Your task to perform on an android device: turn vacation reply on in the gmail app Image 0: 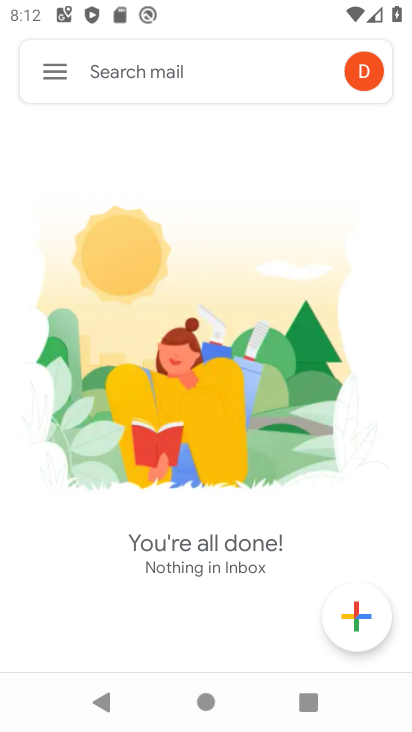
Step 0: click (48, 55)
Your task to perform on an android device: turn vacation reply on in the gmail app Image 1: 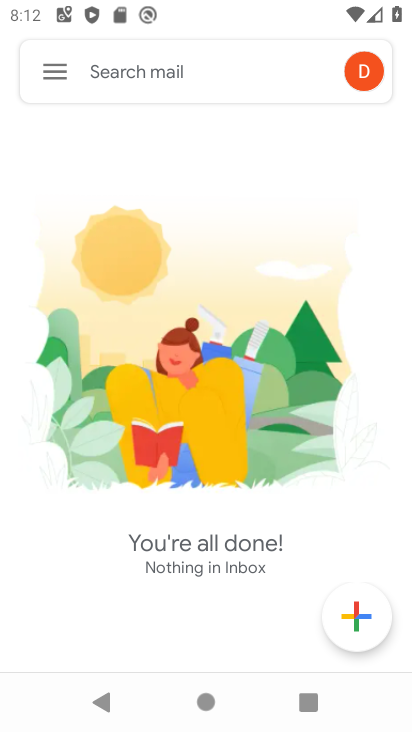
Step 1: click (49, 68)
Your task to perform on an android device: turn vacation reply on in the gmail app Image 2: 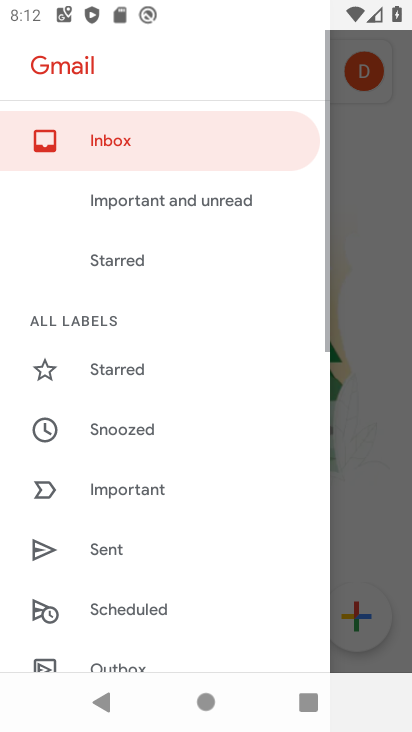
Step 2: click (50, 72)
Your task to perform on an android device: turn vacation reply on in the gmail app Image 3: 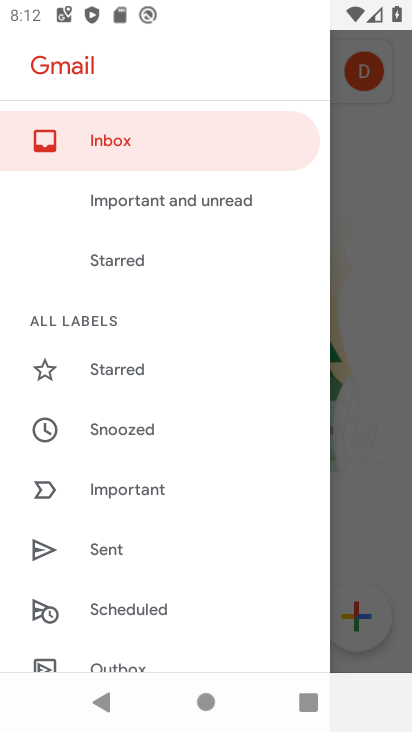
Step 3: click (57, 56)
Your task to perform on an android device: turn vacation reply on in the gmail app Image 4: 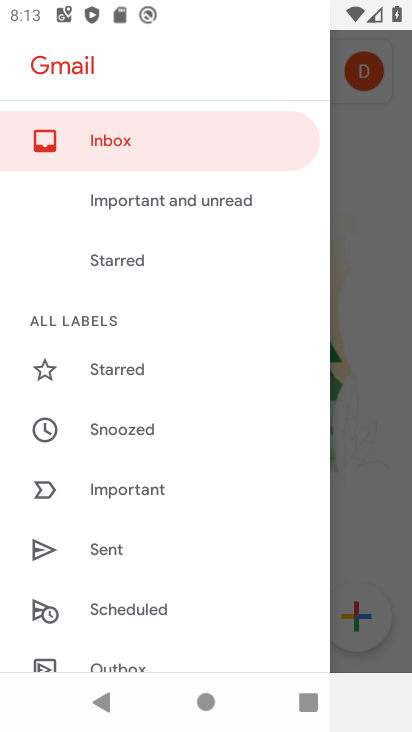
Step 4: drag from (143, 591) to (129, 130)
Your task to perform on an android device: turn vacation reply on in the gmail app Image 5: 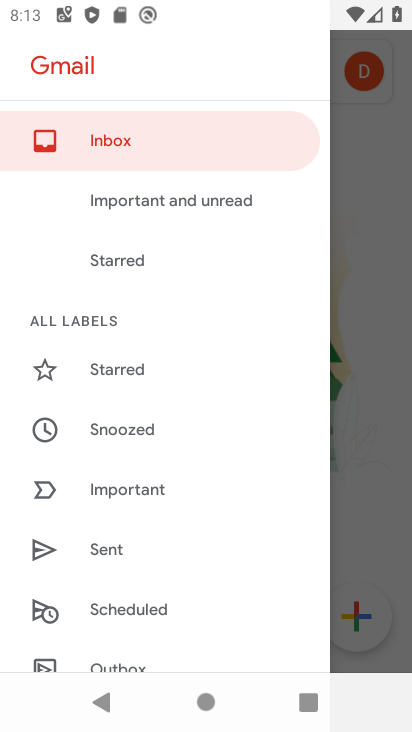
Step 5: drag from (103, 538) to (65, 83)
Your task to perform on an android device: turn vacation reply on in the gmail app Image 6: 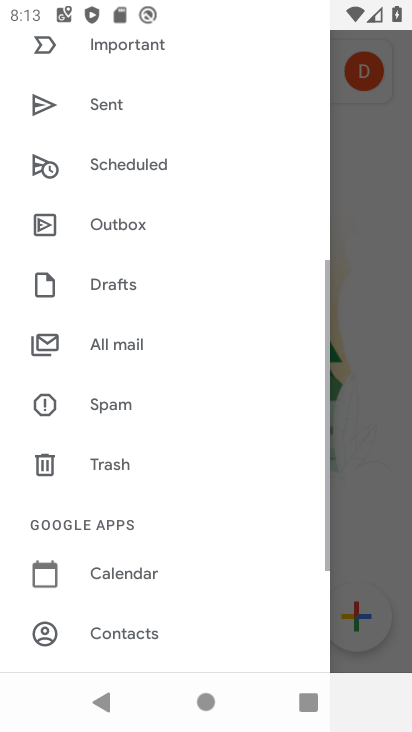
Step 6: drag from (167, 481) to (175, 116)
Your task to perform on an android device: turn vacation reply on in the gmail app Image 7: 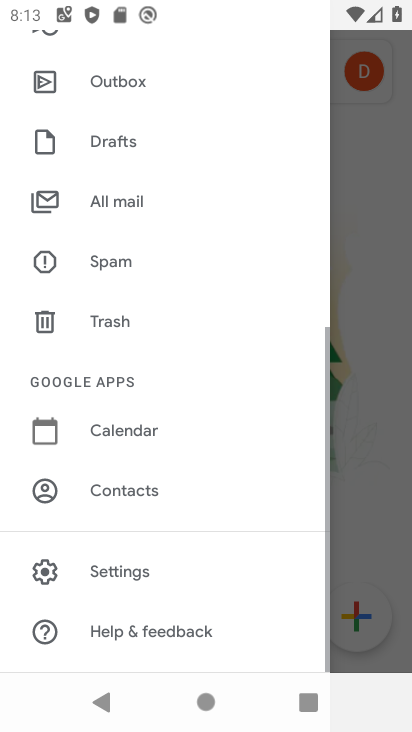
Step 7: drag from (177, 420) to (151, 226)
Your task to perform on an android device: turn vacation reply on in the gmail app Image 8: 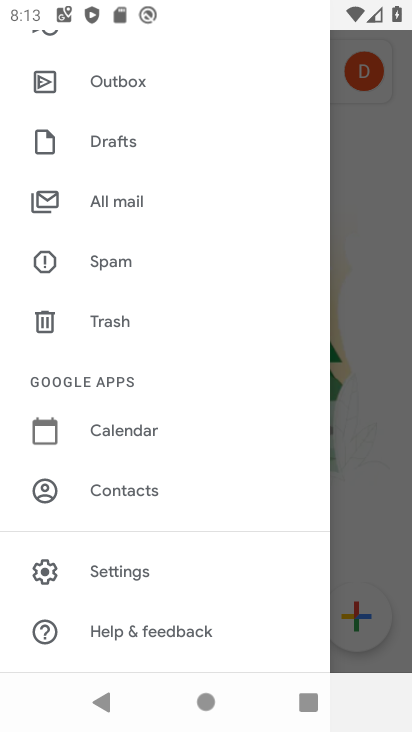
Step 8: click (120, 567)
Your task to perform on an android device: turn vacation reply on in the gmail app Image 9: 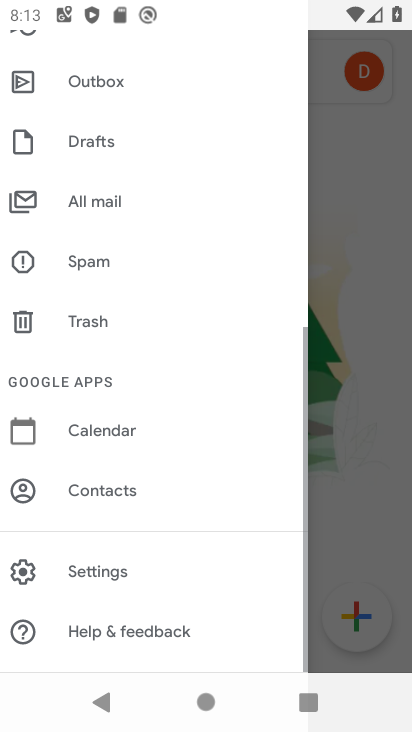
Step 9: click (120, 570)
Your task to perform on an android device: turn vacation reply on in the gmail app Image 10: 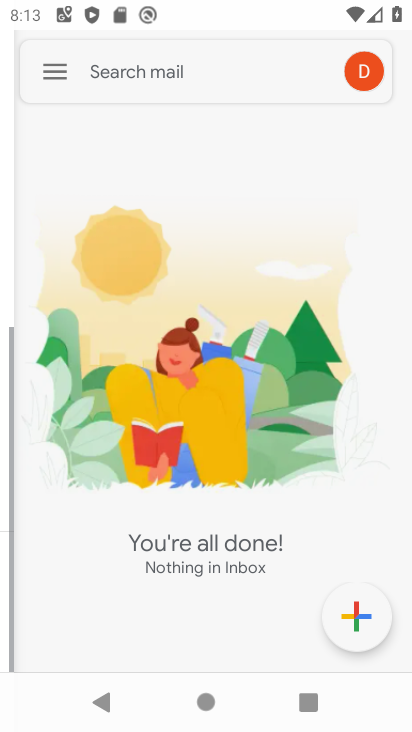
Step 10: click (120, 570)
Your task to perform on an android device: turn vacation reply on in the gmail app Image 11: 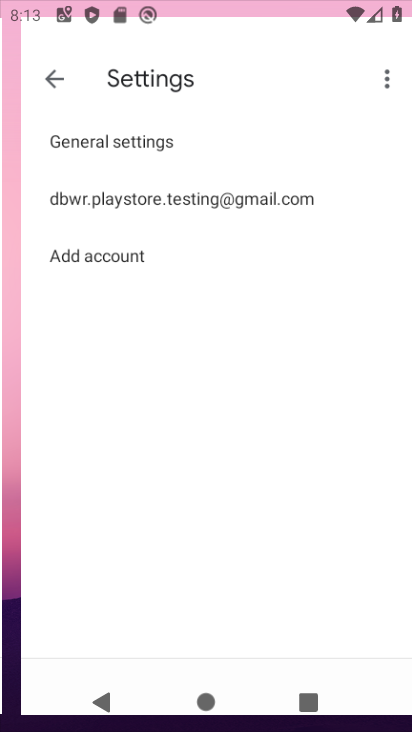
Step 11: click (121, 571)
Your task to perform on an android device: turn vacation reply on in the gmail app Image 12: 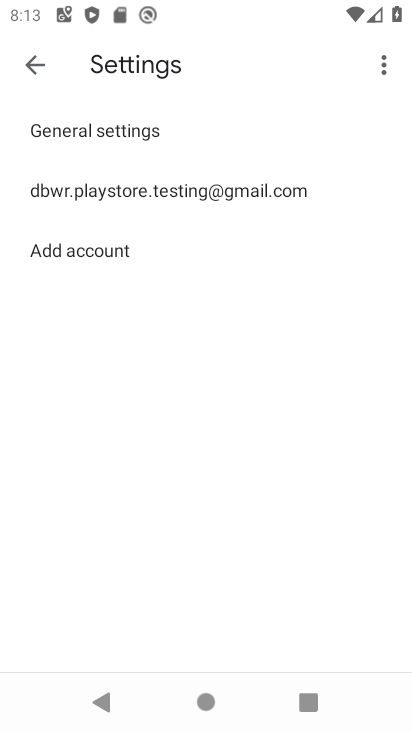
Step 12: click (114, 190)
Your task to perform on an android device: turn vacation reply on in the gmail app Image 13: 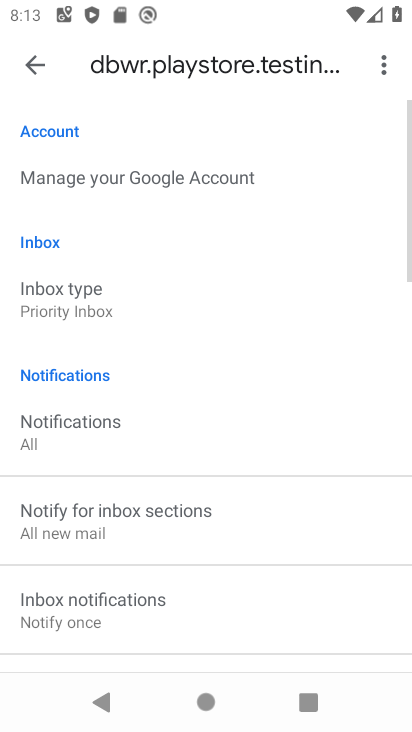
Step 13: drag from (148, 524) to (139, 137)
Your task to perform on an android device: turn vacation reply on in the gmail app Image 14: 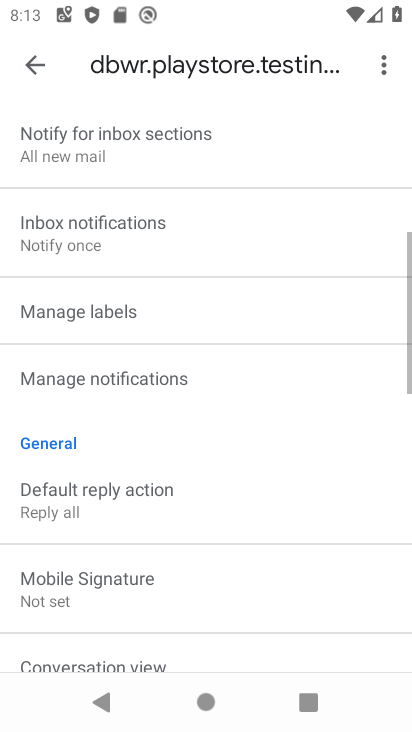
Step 14: drag from (158, 534) to (145, 71)
Your task to perform on an android device: turn vacation reply on in the gmail app Image 15: 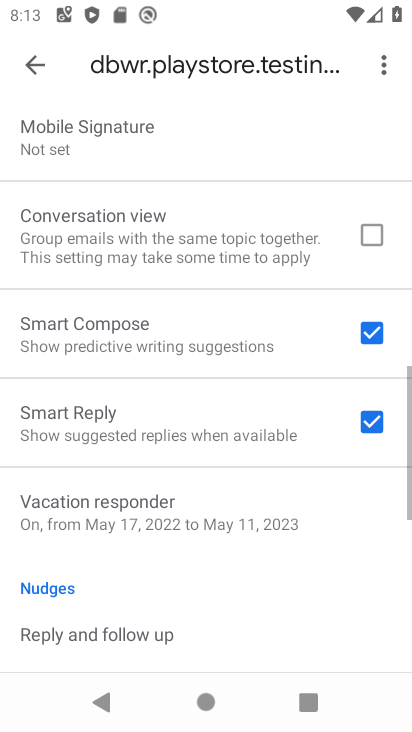
Step 15: drag from (171, 513) to (68, 41)
Your task to perform on an android device: turn vacation reply on in the gmail app Image 16: 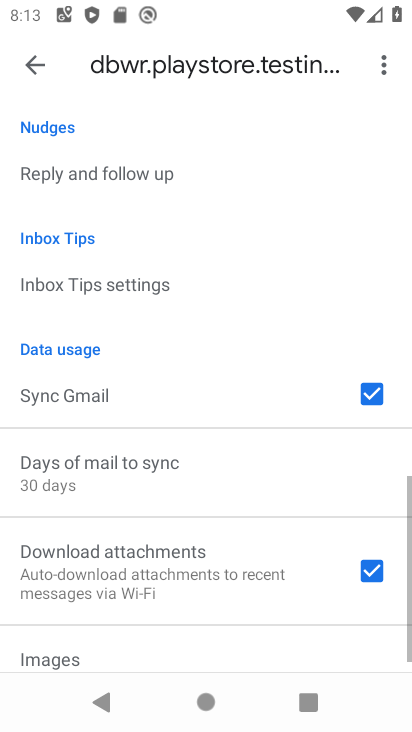
Step 16: drag from (89, 549) to (125, 120)
Your task to perform on an android device: turn vacation reply on in the gmail app Image 17: 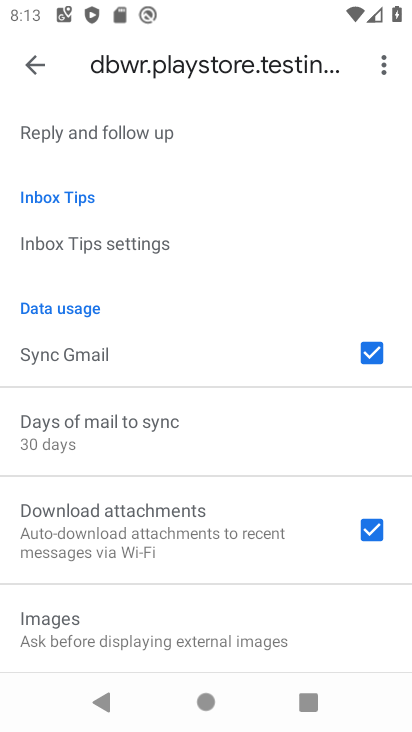
Step 17: drag from (129, 557) to (145, 227)
Your task to perform on an android device: turn vacation reply on in the gmail app Image 18: 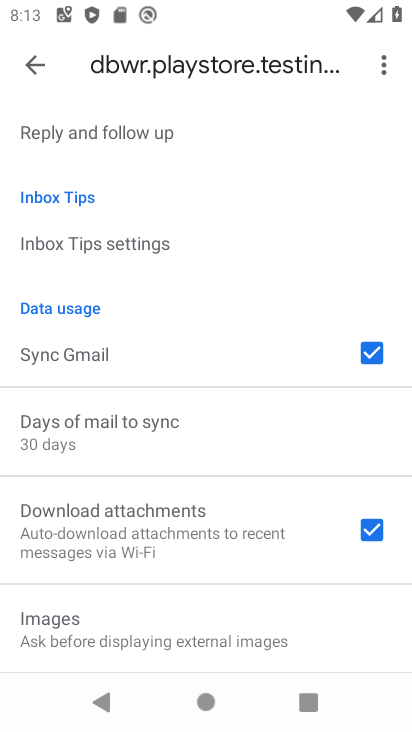
Step 18: click (157, 114)
Your task to perform on an android device: turn vacation reply on in the gmail app Image 19: 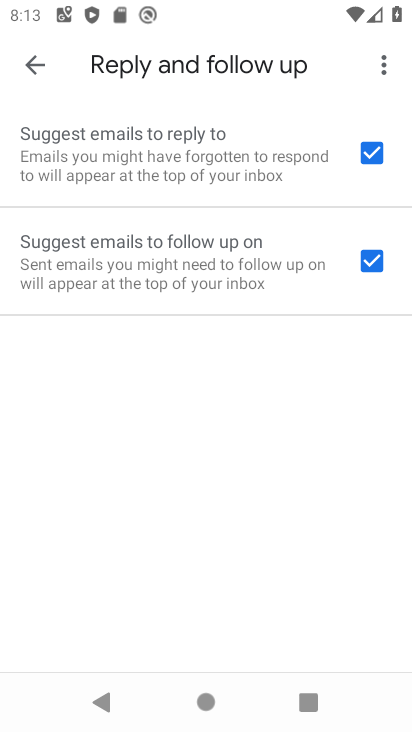
Step 19: click (41, 66)
Your task to perform on an android device: turn vacation reply on in the gmail app Image 20: 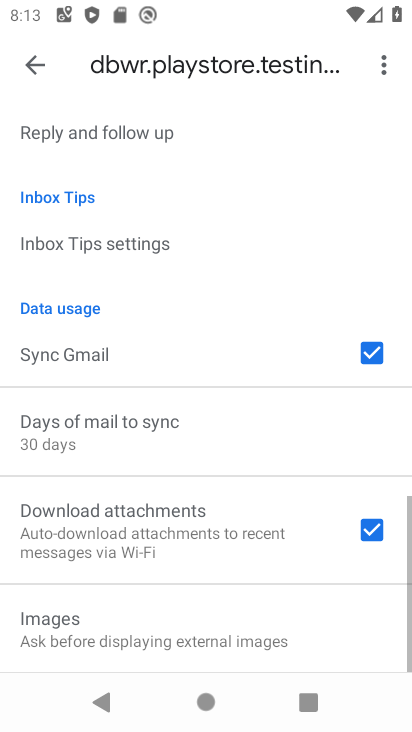
Step 20: task complete